Your task to perform on an android device: open wifi settings Image 0: 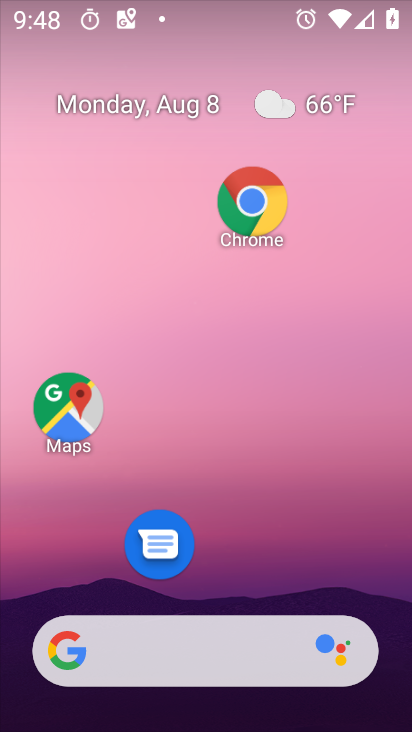
Step 0: press home button
Your task to perform on an android device: open wifi settings Image 1: 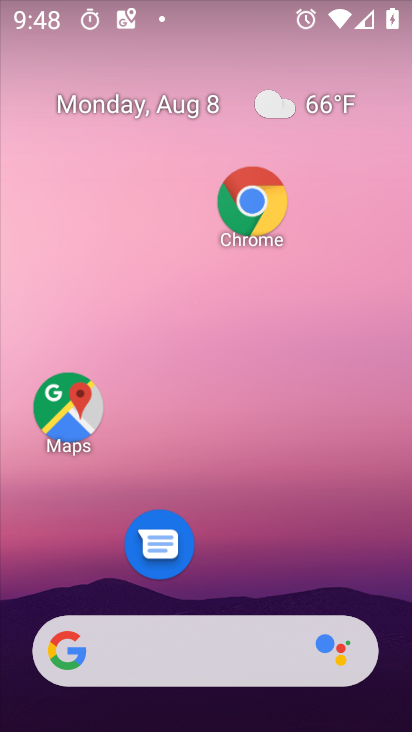
Step 1: drag from (309, 591) to (325, 64)
Your task to perform on an android device: open wifi settings Image 2: 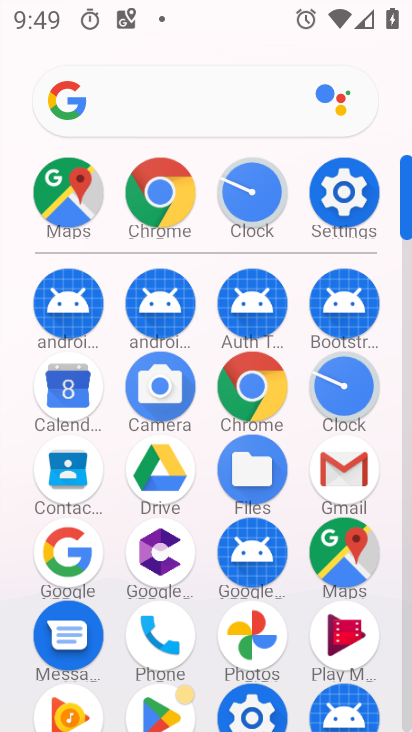
Step 2: click (342, 183)
Your task to perform on an android device: open wifi settings Image 3: 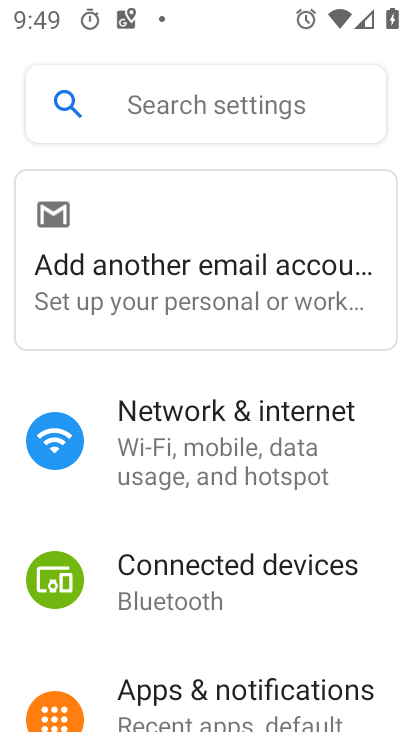
Step 3: click (206, 407)
Your task to perform on an android device: open wifi settings Image 4: 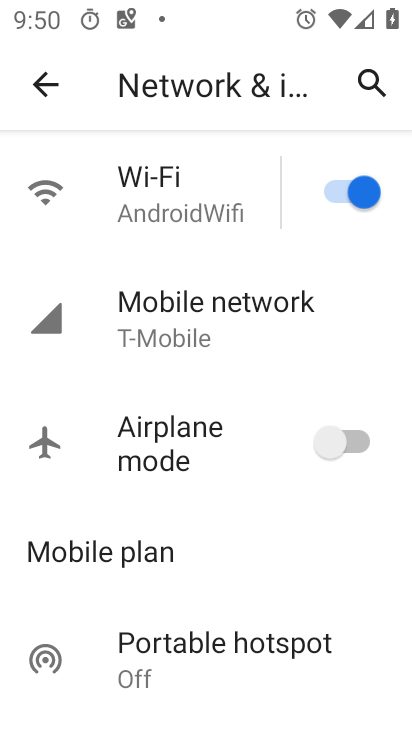
Step 4: click (187, 190)
Your task to perform on an android device: open wifi settings Image 5: 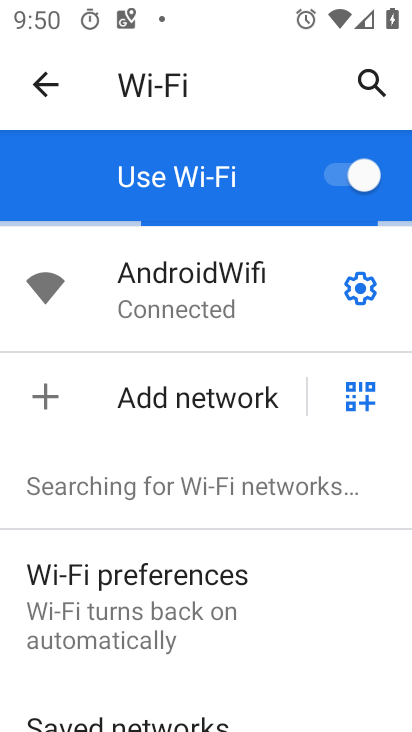
Step 5: task complete